Your task to perform on an android device: refresh tabs in the chrome app Image 0: 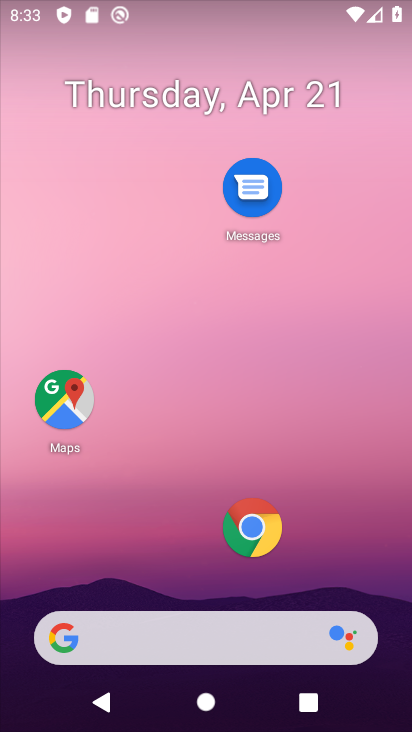
Step 0: drag from (181, 631) to (290, 154)
Your task to perform on an android device: refresh tabs in the chrome app Image 1: 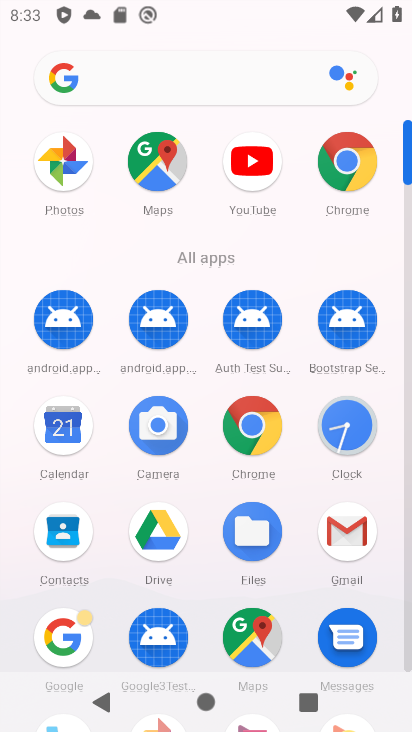
Step 1: click (347, 170)
Your task to perform on an android device: refresh tabs in the chrome app Image 2: 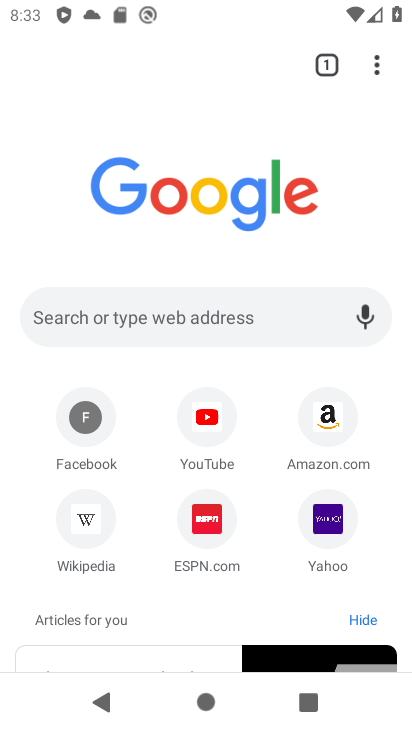
Step 2: click (373, 74)
Your task to perform on an android device: refresh tabs in the chrome app Image 3: 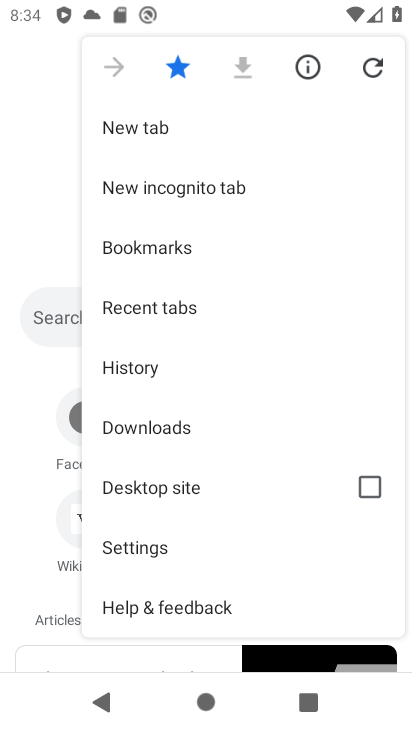
Step 3: click (366, 71)
Your task to perform on an android device: refresh tabs in the chrome app Image 4: 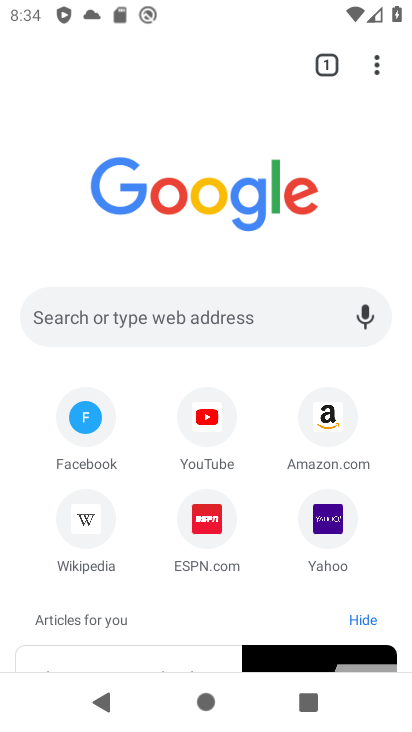
Step 4: task complete